Your task to perform on an android device: Open maps Image 0: 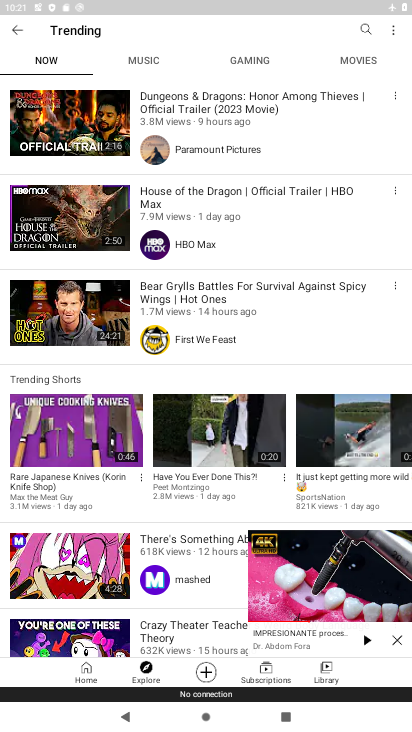
Step 0: press home button
Your task to perform on an android device: Open maps Image 1: 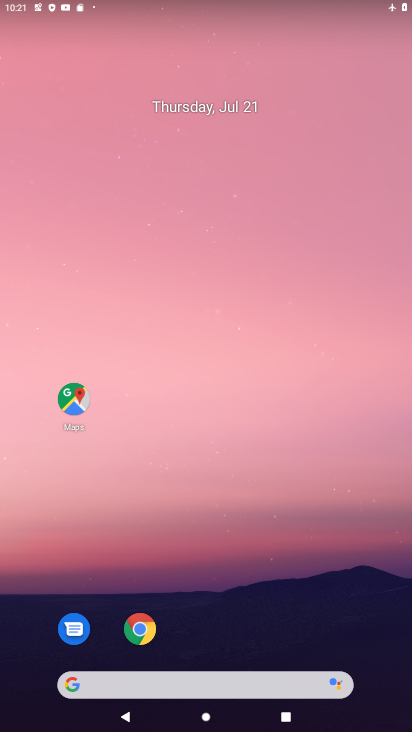
Step 1: click (79, 420)
Your task to perform on an android device: Open maps Image 2: 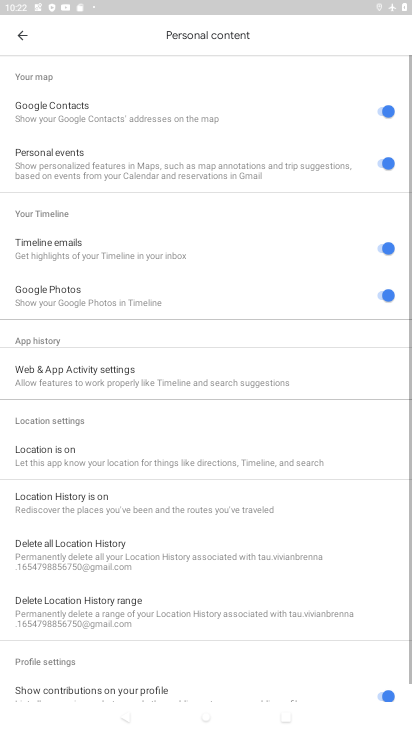
Step 2: click (16, 41)
Your task to perform on an android device: Open maps Image 3: 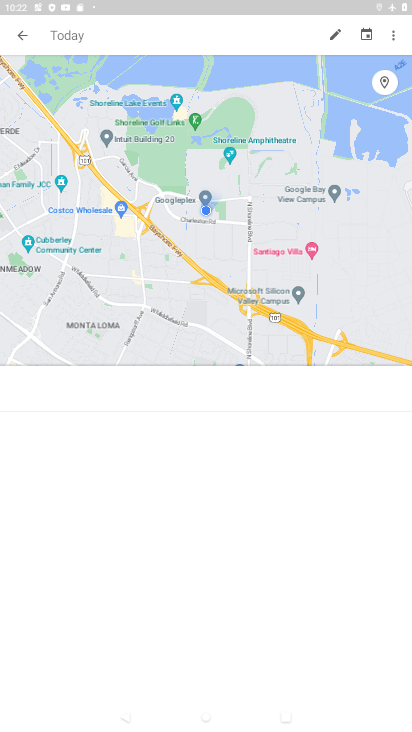
Step 3: click (16, 41)
Your task to perform on an android device: Open maps Image 4: 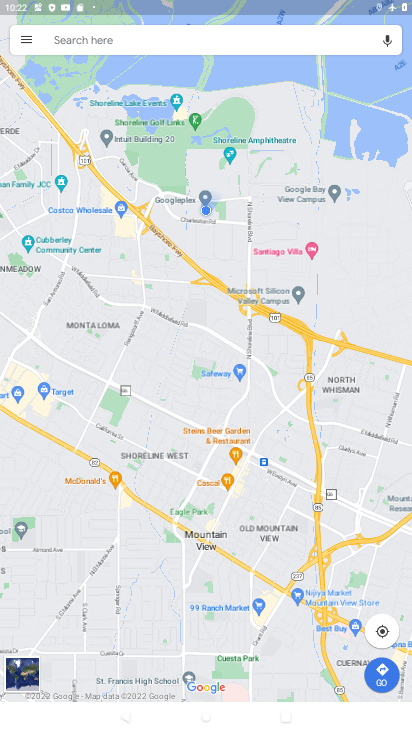
Step 4: task complete